Your task to perform on an android device: clear all cookies in the chrome app Image 0: 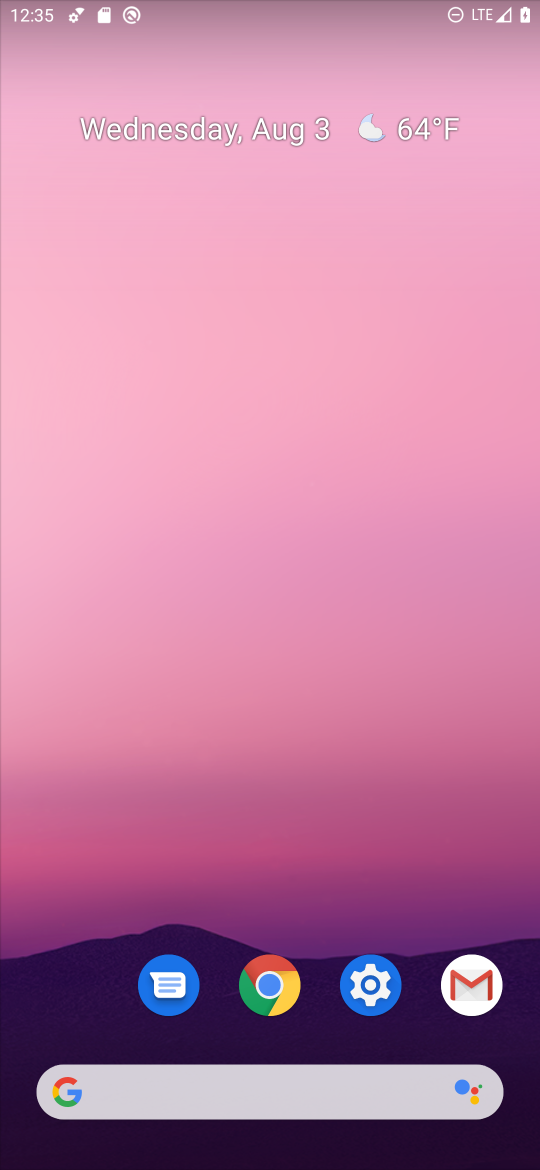
Step 0: press home button
Your task to perform on an android device: clear all cookies in the chrome app Image 1: 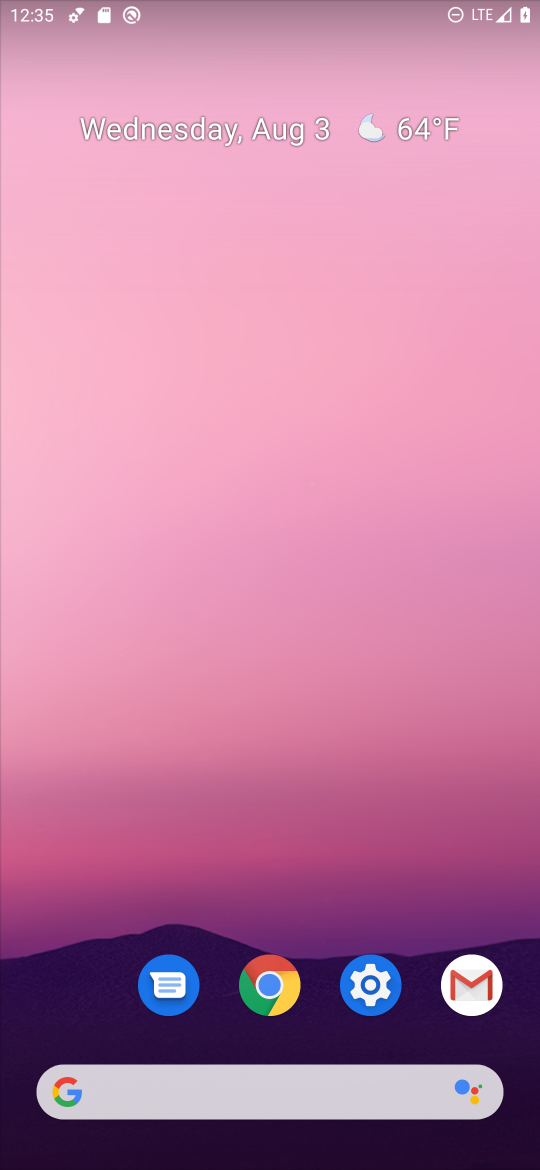
Step 1: click (265, 1009)
Your task to perform on an android device: clear all cookies in the chrome app Image 2: 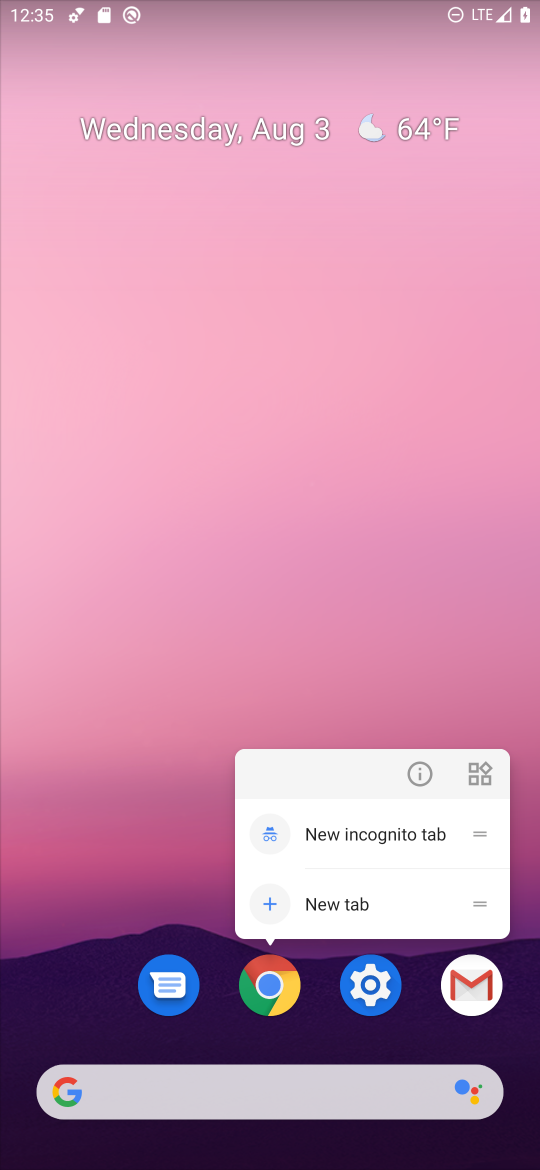
Step 2: click (265, 1005)
Your task to perform on an android device: clear all cookies in the chrome app Image 3: 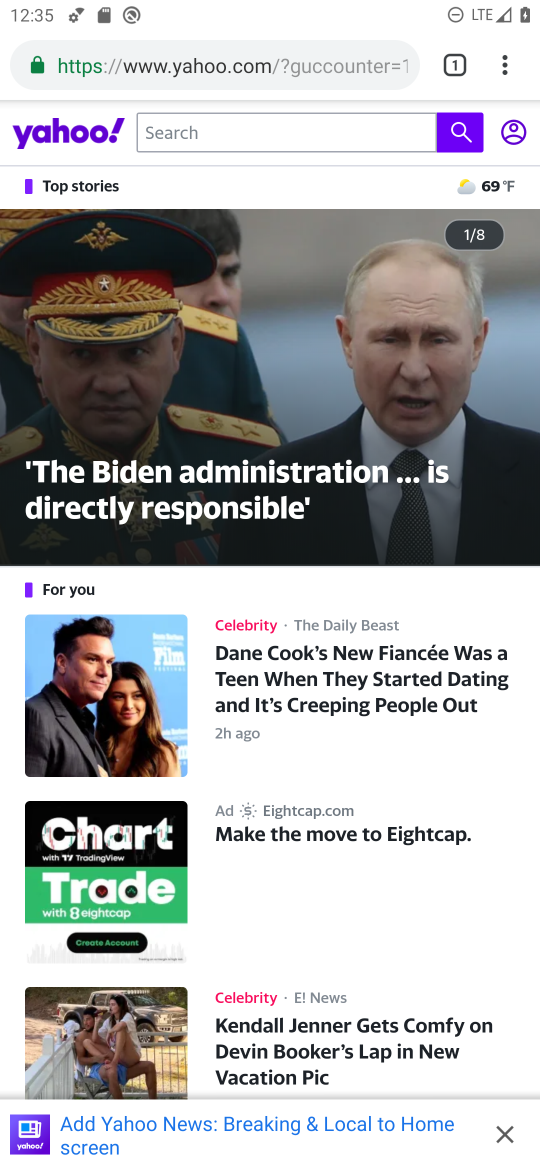
Step 3: click (501, 76)
Your task to perform on an android device: clear all cookies in the chrome app Image 4: 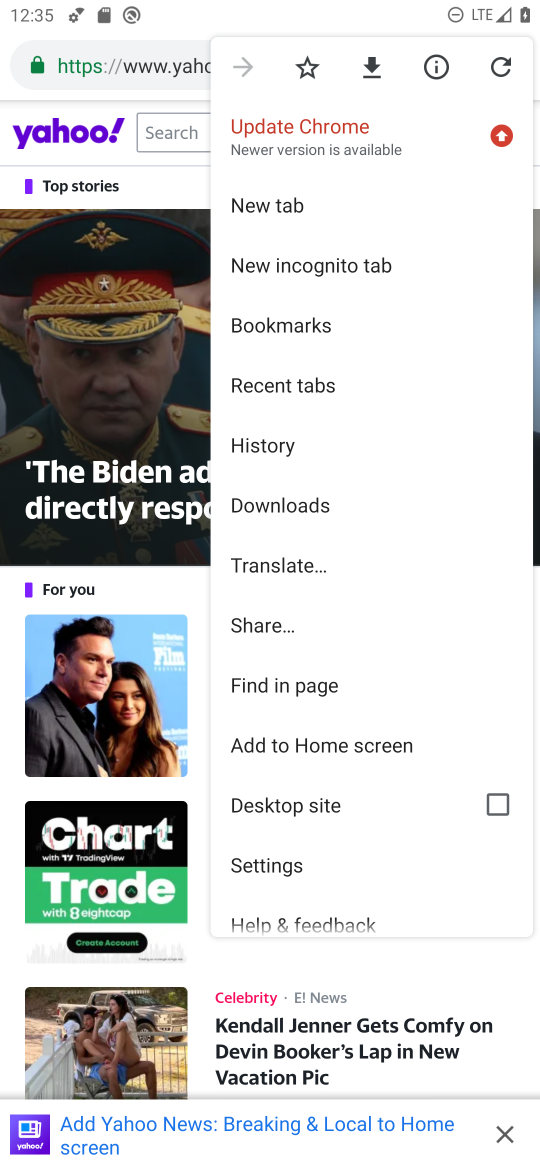
Step 4: click (260, 451)
Your task to perform on an android device: clear all cookies in the chrome app Image 5: 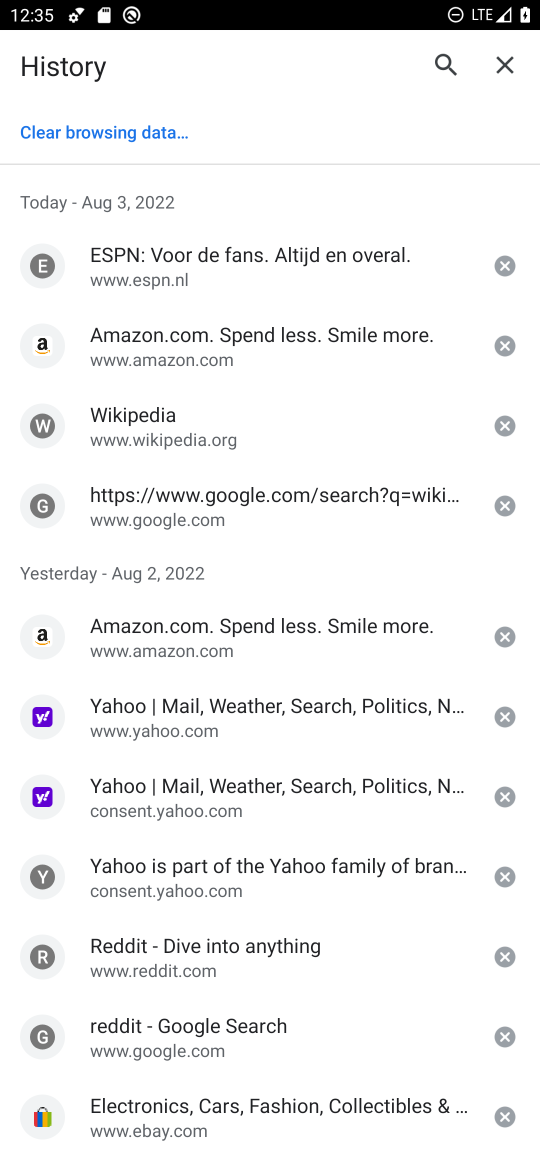
Step 5: click (121, 130)
Your task to perform on an android device: clear all cookies in the chrome app Image 6: 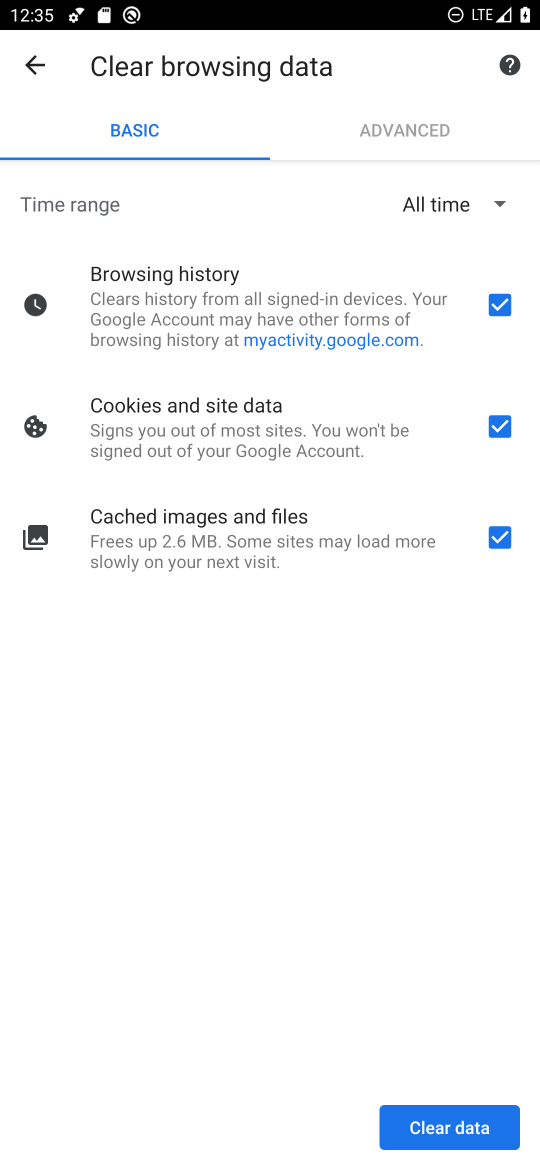
Step 6: click (465, 1133)
Your task to perform on an android device: clear all cookies in the chrome app Image 7: 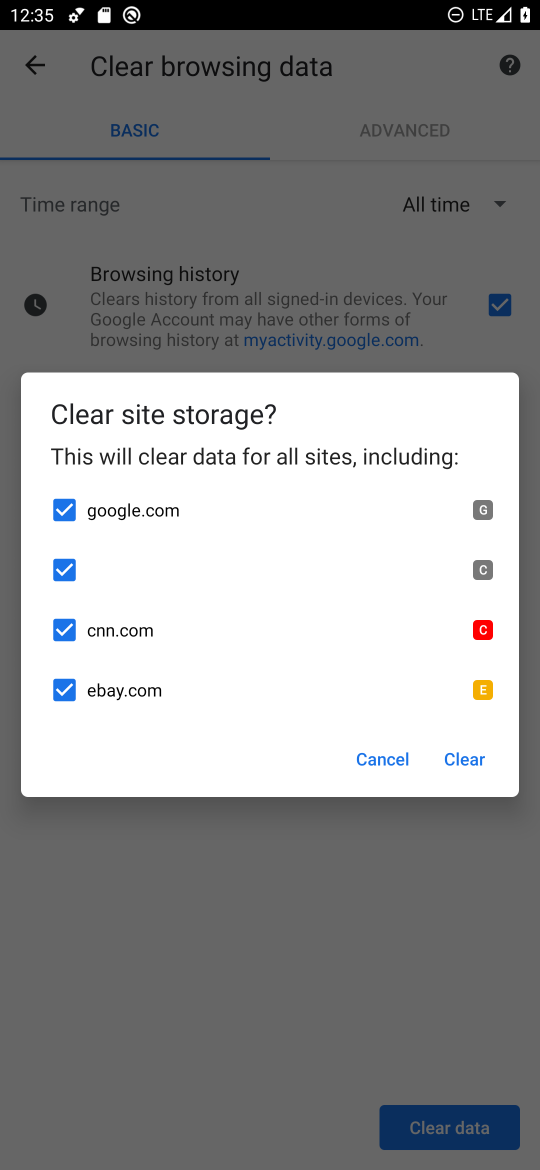
Step 7: click (467, 762)
Your task to perform on an android device: clear all cookies in the chrome app Image 8: 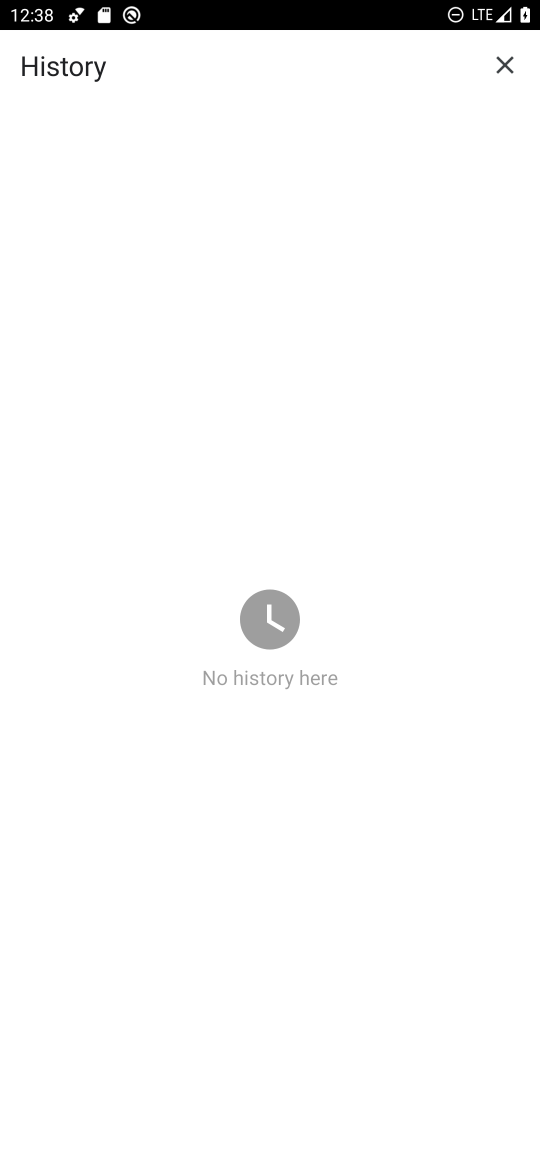
Step 8: task complete